Your task to perform on an android device: Go to battery settings Image 0: 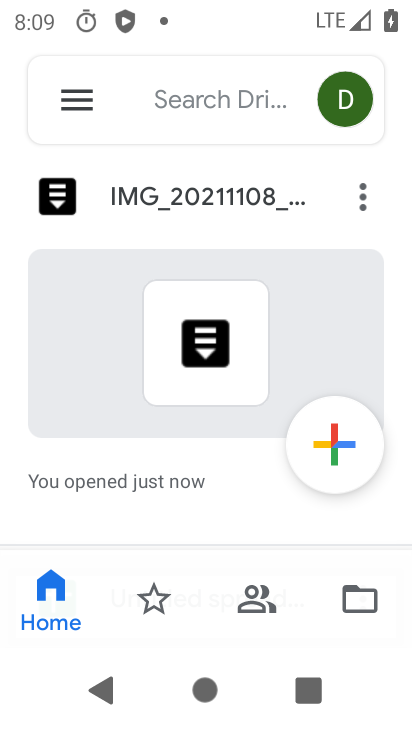
Step 0: press home button
Your task to perform on an android device: Go to battery settings Image 1: 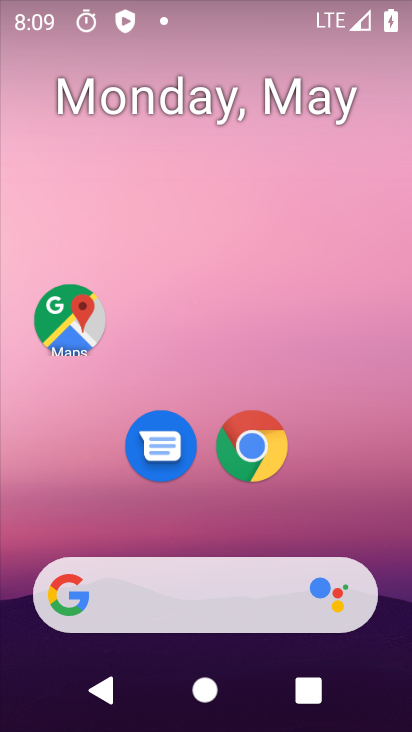
Step 1: drag from (375, 549) to (316, 35)
Your task to perform on an android device: Go to battery settings Image 2: 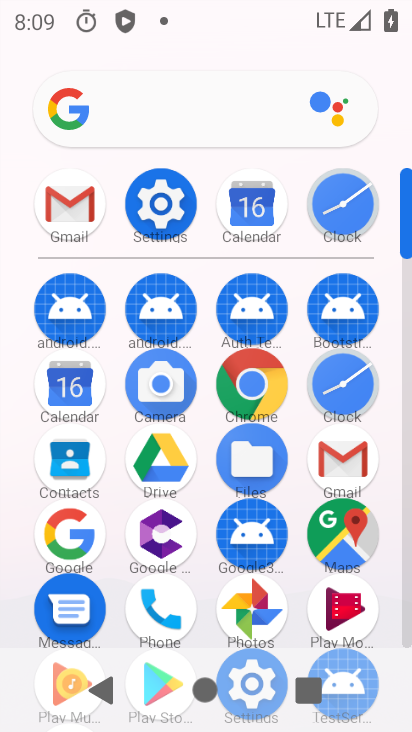
Step 2: click (147, 199)
Your task to perform on an android device: Go to battery settings Image 3: 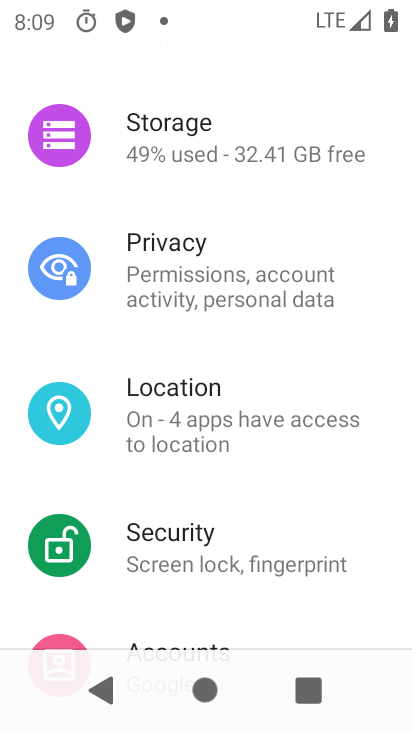
Step 3: drag from (296, 498) to (270, 85)
Your task to perform on an android device: Go to battery settings Image 4: 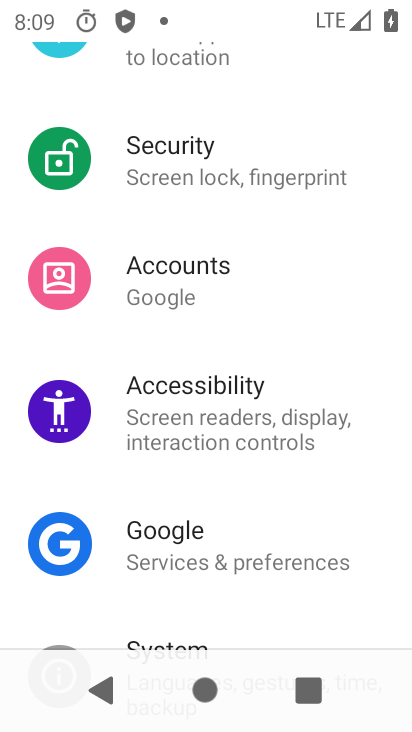
Step 4: drag from (290, 193) to (289, 593)
Your task to perform on an android device: Go to battery settings Image 5: 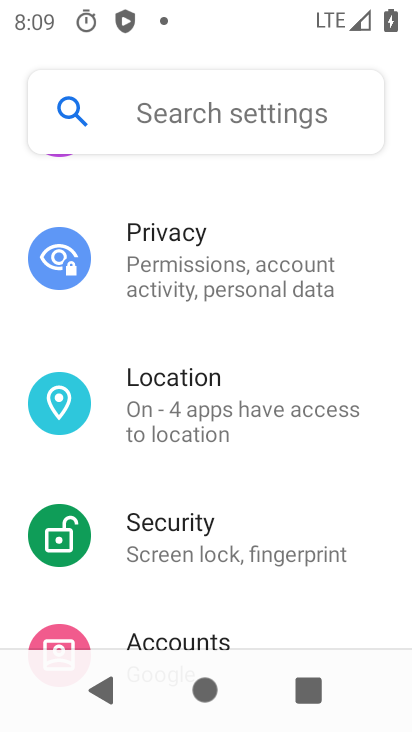
Step 5: drag from (329, 223) to (309, 594)
Your task to perform on an android device: Go to battery settings Image 6: 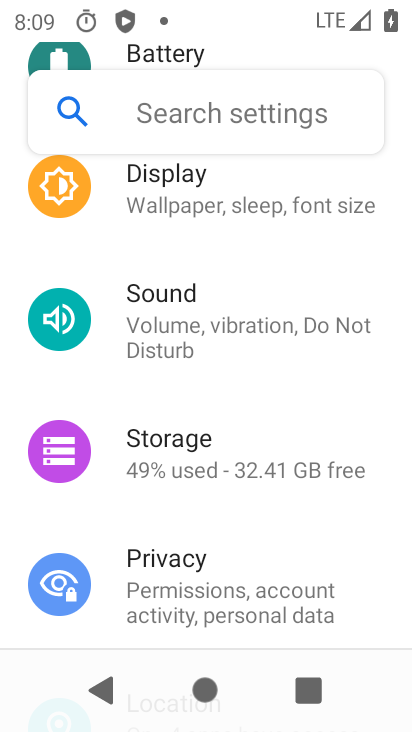
Step 6: drag from (291, 286) to (267, 586)
Your task to perform on an android device: Go to battery settings Image 7: 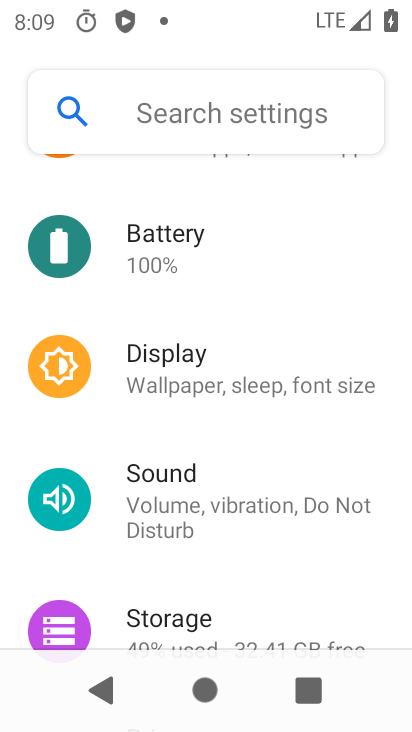
Step 7: click (144, 270)
Your task to perform on an android device: Go to battery settings Image 8: 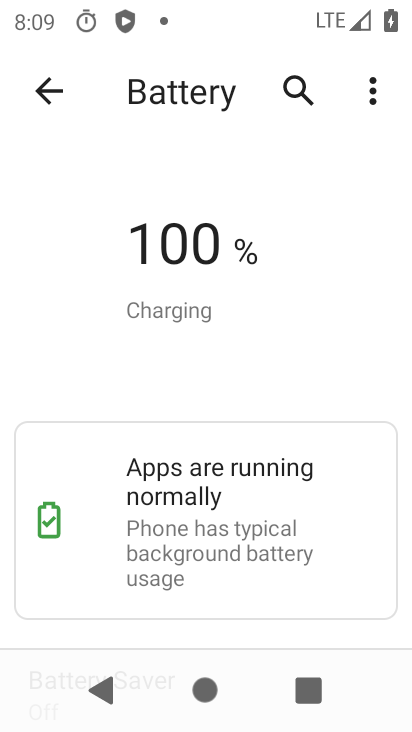
Step 8: task complete